Your task to perform on an android device: Open calendar and show me the third week of next month Image 0: 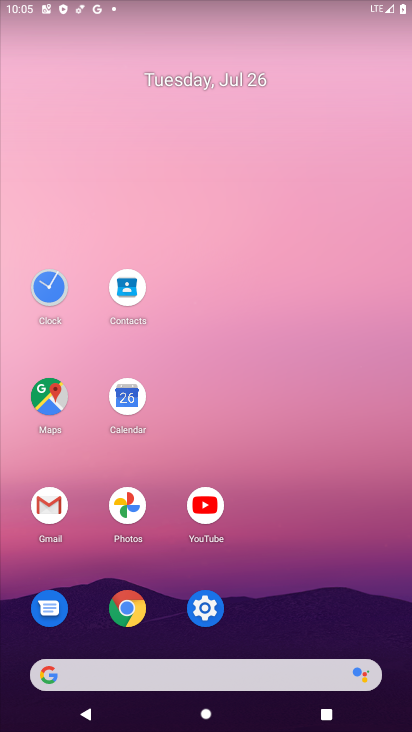
Step 0: click (128, 389)
Your task to perform on an android device: Open calendar and show me the third week of next month Image 1: 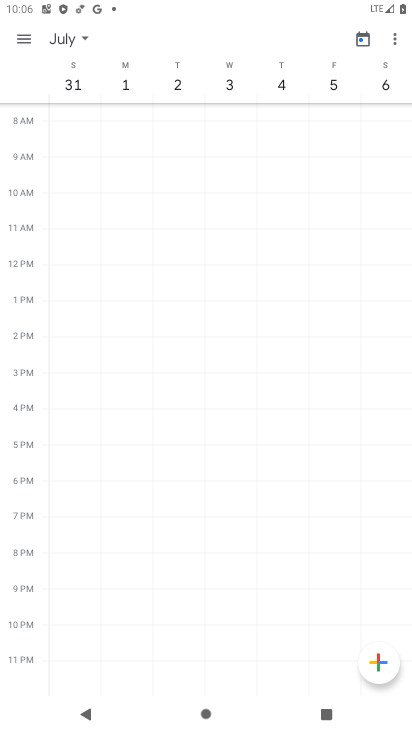
Step 1: click (81, 36)
Your task to perform on an android device: Open calendar and show me the third week of next month Image 2: 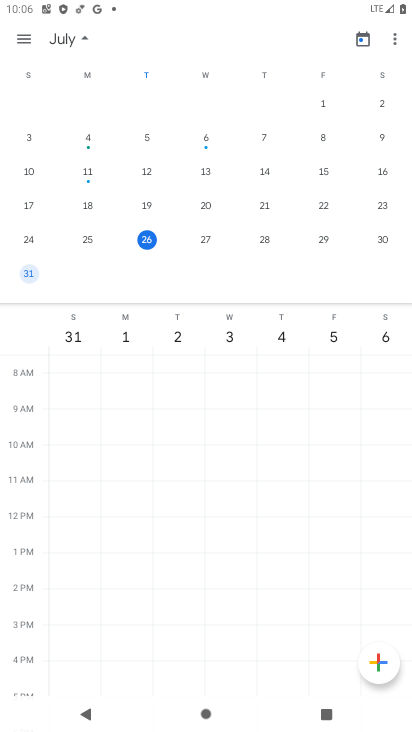
Step 2: drag from (359, 188) to (46, 152)
Your task to perform on an android device: Open calendar and show me the third week of next month Image 3: 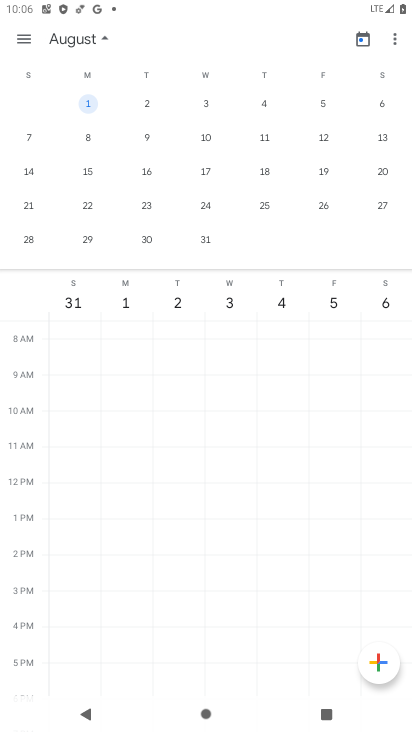
Step 3: click (91, 168)
Your task to perform on an android device: Open calendar and show me the third week of next month Image 4: 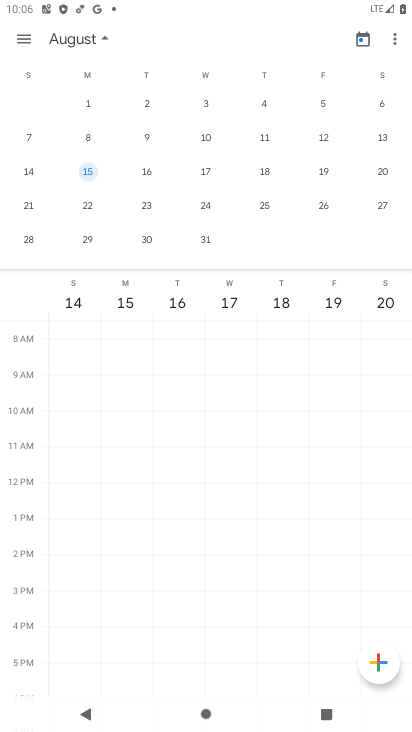
Step 4: task complete